Your task to perform on an android device: turn off sleep mode Image 0: 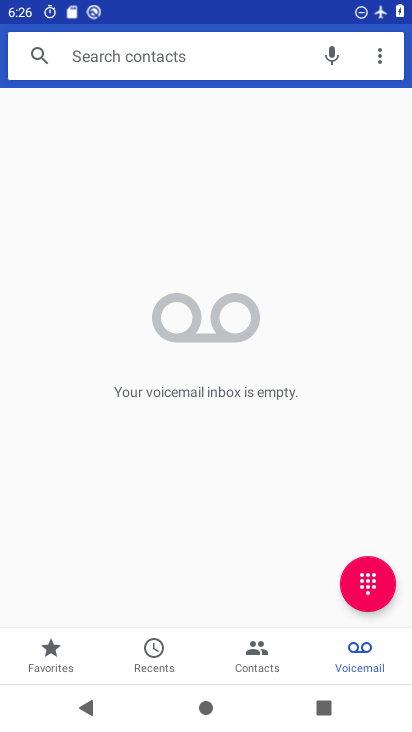
Step 0: press home button
Your task to perform on an android device: turn off sleep mode Image 1: 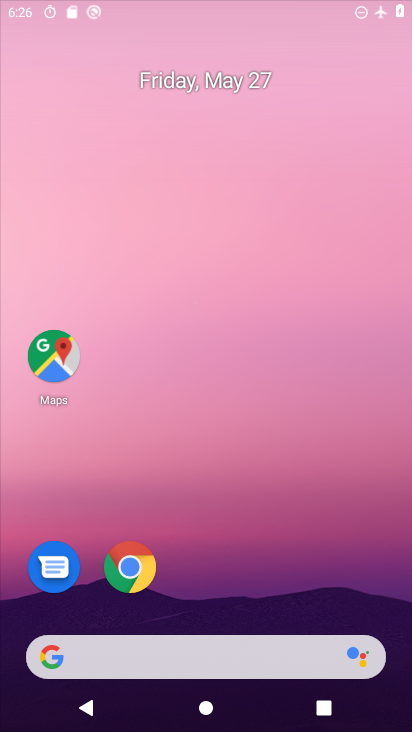
Step 1: drag from (237, 635) to (224, 132)
Your task to perform on an android device: turn off sleep mode Image 2: 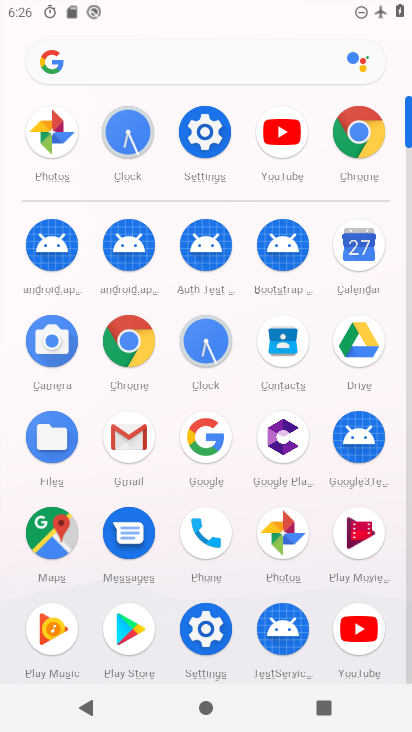
Step 2: click (218, 108)
Your task to perform on an android device: turn off sleep mode Image 3: 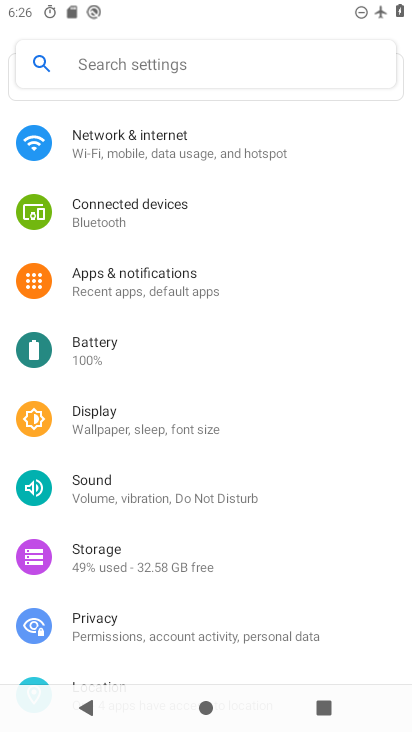
Step 3: task complete